Your task to perform on an android device: Toggle the flashlight Image 0: 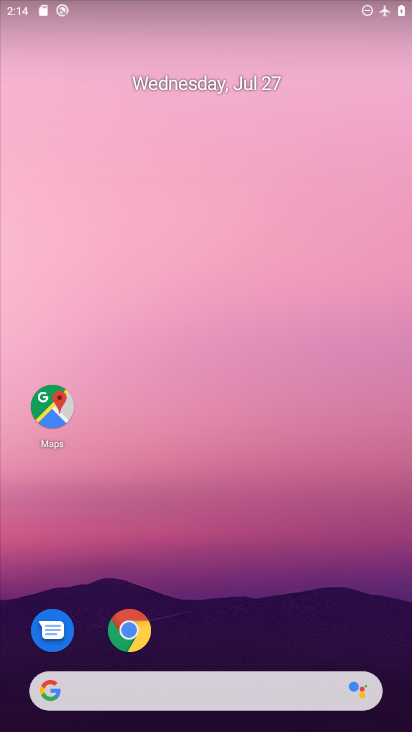
Step 0: drag from (222, 10) to (211, 559)
Your task to perform on an android device: Toggle the flashlight Image 1: 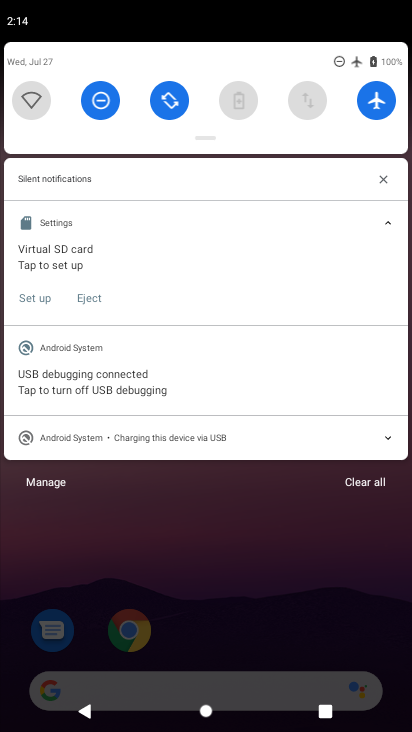
Step 1: drag from (202, 138) to (210, 457)
Your task to perform on an android device: Toggle the flashlight Image 2: 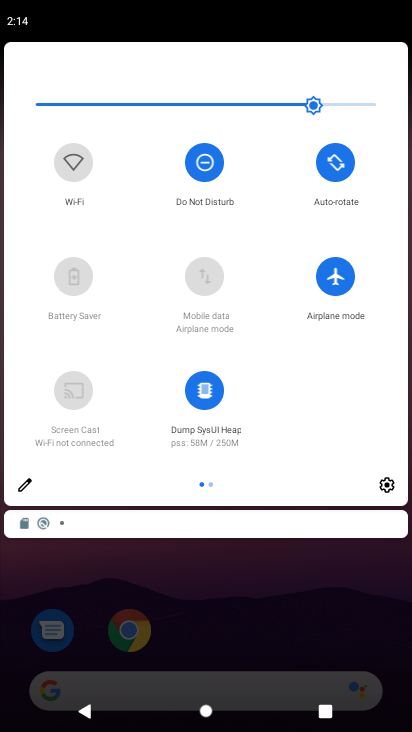
Step 2: click (22, 487)
Your task to perform on an android device: Toggle the flashlight Image 3: 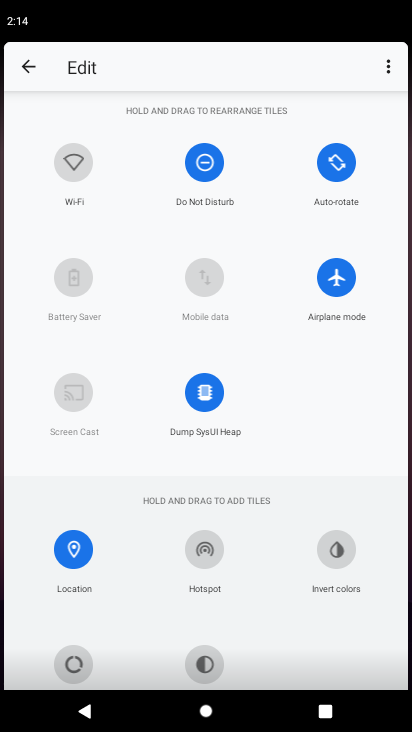
Step 3: task complete